Your task to perform on an android device: Go to settings Image 0: 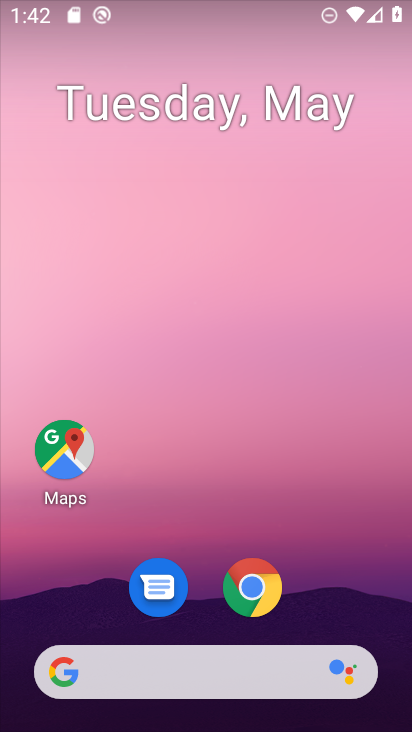
Step 0: drag from (195, 606) to (239, 52)
Your task to perform on an android device: Go to settings Image 1: 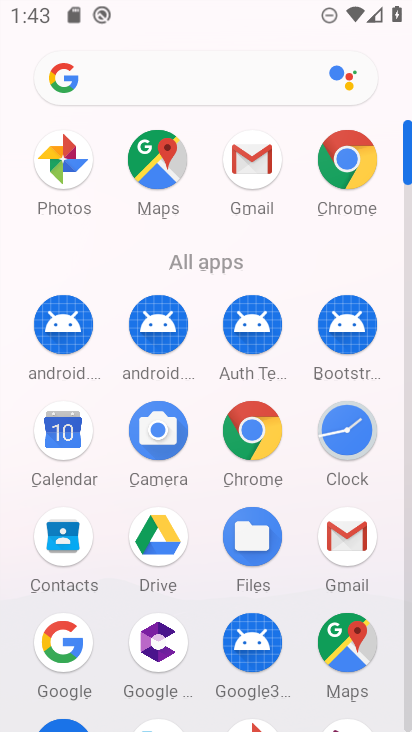
Step 1: drag from (150, 717) to (219, 80)
Your task to perform on an android device: Go to settings Image 2: 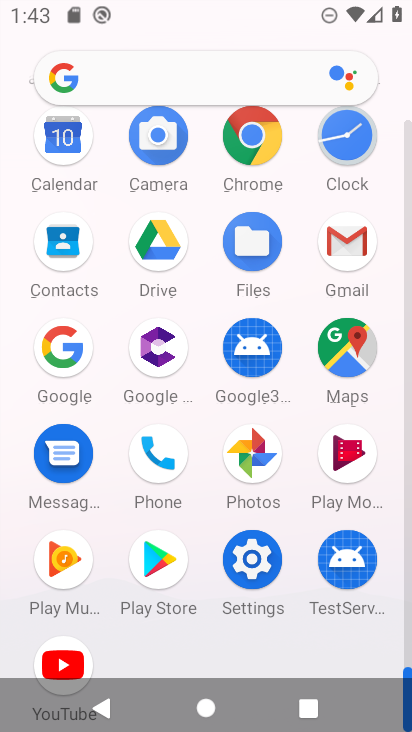
Step 2: click (227, 581)
Your task to perform on an android device: Go to settings Image 3: 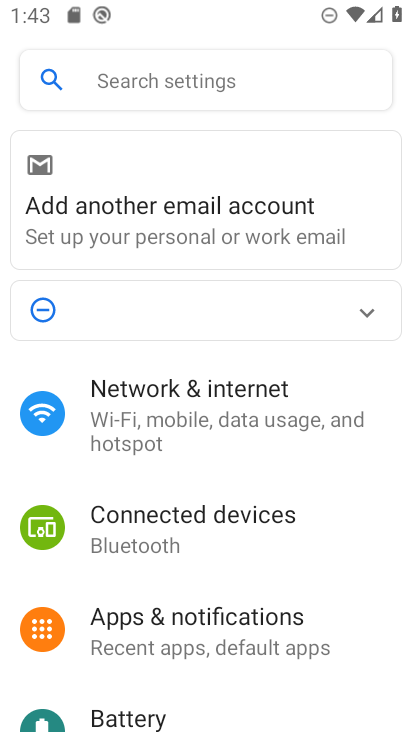
Step 3: task complete